Your task to perform on an android device: Turn off the flashlight Image 0: 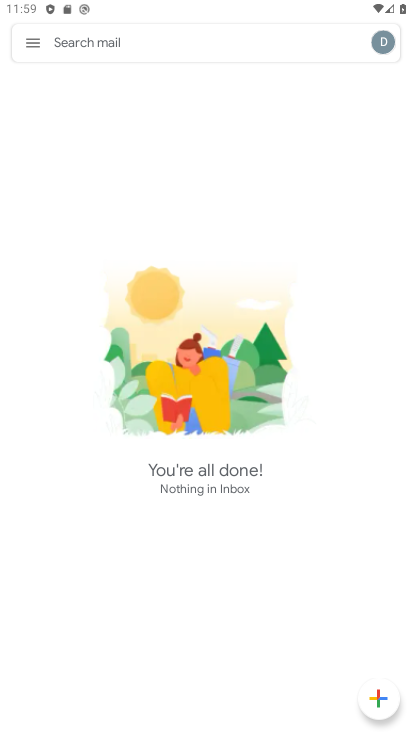
Step 0: press home button
Your task to perform on an android device: Turn off the flashlight Image 1: 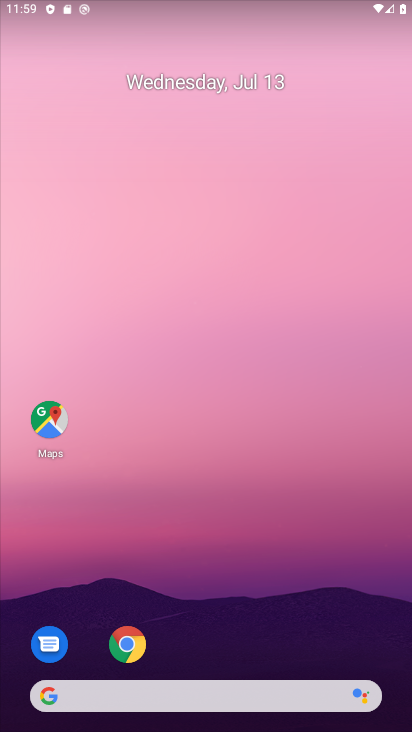
Step 1: drag from (211, 668) to (175, 95)
Your task to perform on an android device: Turn off the flashlight Image 2: 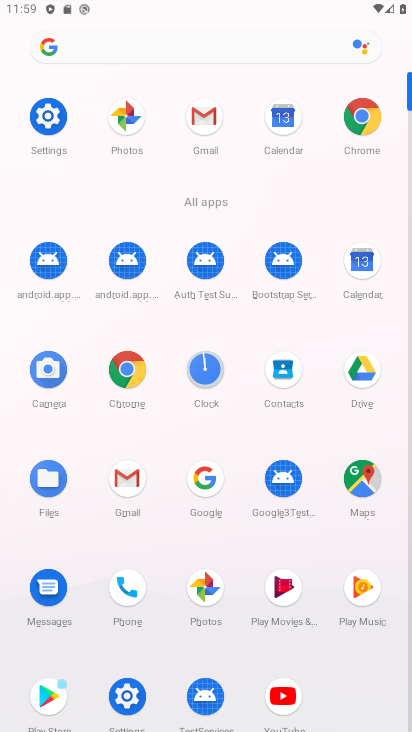
Step 2: click (127, 702)
Your task to perform on an android device: Turn off the flashlight Image 3: 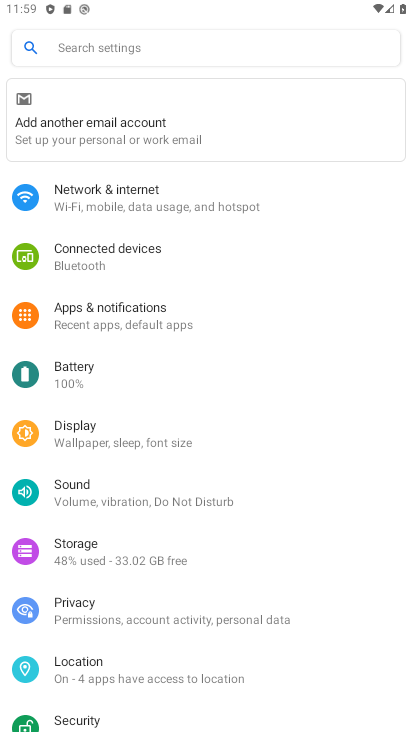
Step 3: task complete